Your task to perform on an android device: Show me the alarms in the clock app Image 0: 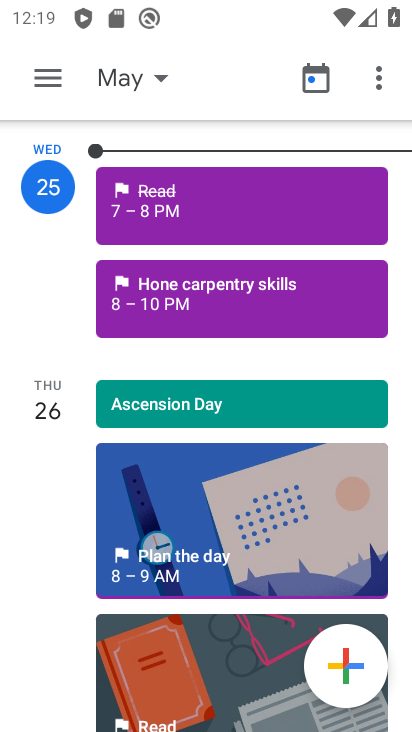
Step 0: press home button
Your task to perform on an android device: Show me the alarms in the clock app Image 1: 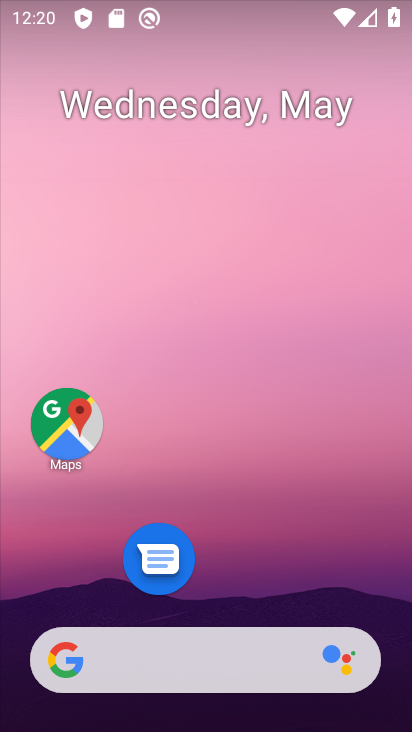
Step 1: drag from (220, 602) to (161, 48)
Your task to perform on an android device: Show me the alarms in the clock app Image 2: 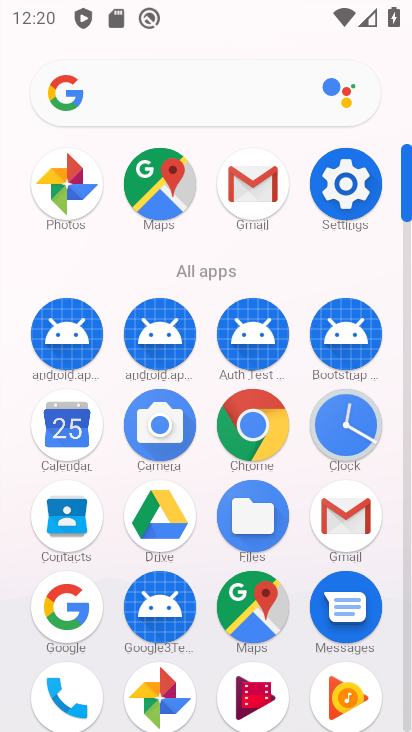
Step 2: click (335, 431)
Your task to perform on an android device: Show me the alarms in the clock app Image 3: 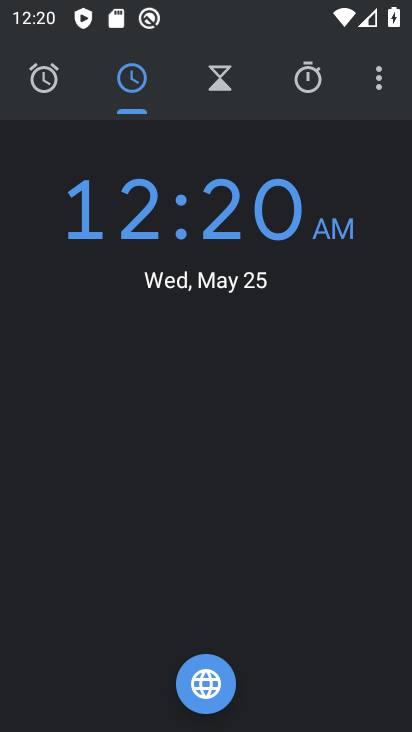
Step 3: click (40, 68)
Your task to perform on an android device: Show me the alarms in the clock app Image 4: 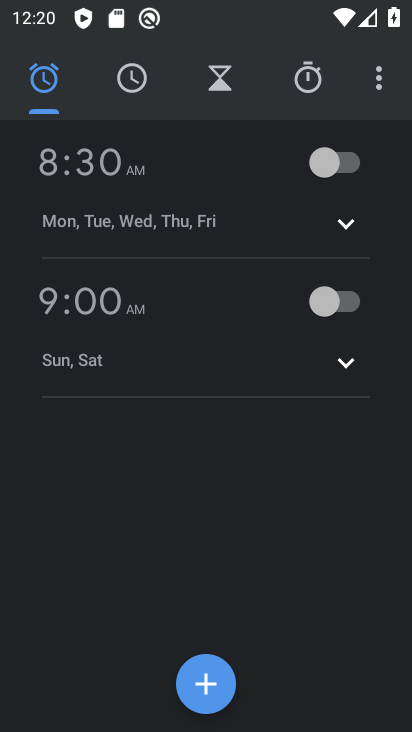
Step 4: task complete